Your task to perform on an android device: open wifi settings Image 0: 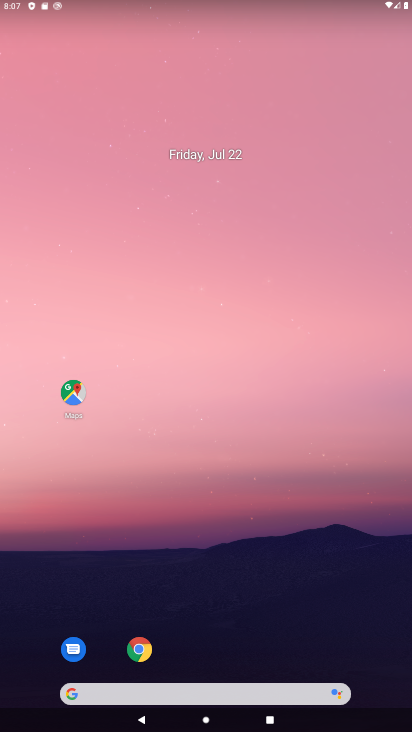
Step 0: drag from (217, 590) to (240, 301)
Your task to perform on an android device: open wifi settings Image 1: 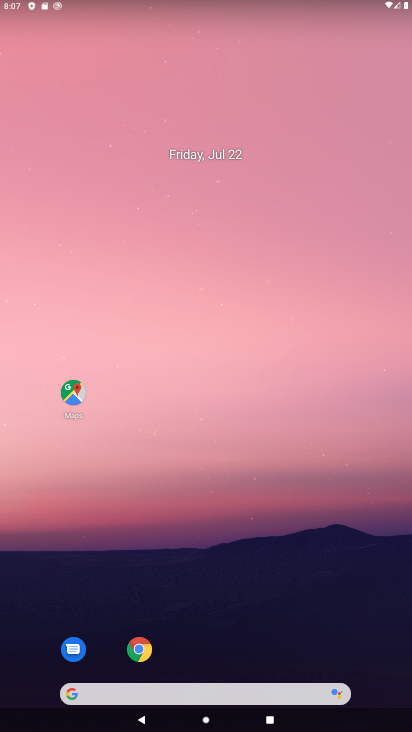
Step 1: drag from (257, 549) to (262, 182)
Your task to perform on an android device: open wifi settings Image 2: 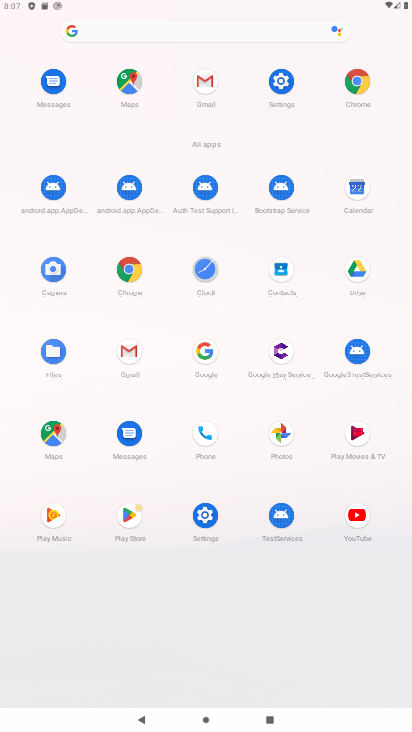
Step 2: click (284, 84)
Your task to perform on an android device: open wifi settings Image 3: 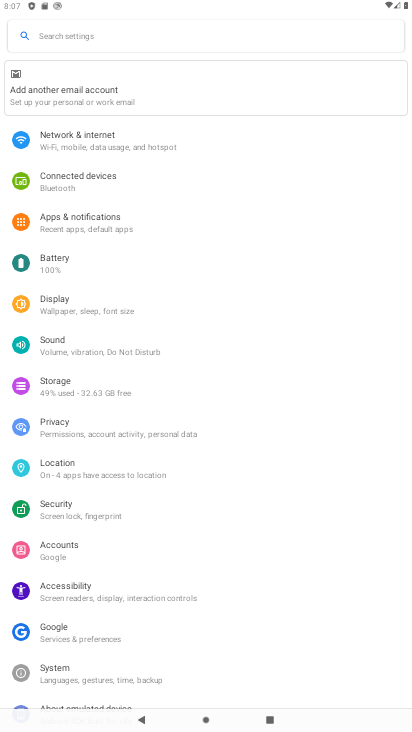
Step 3: click (75, 131)
Your task to perform on an android device: open wifi settings Image 4: 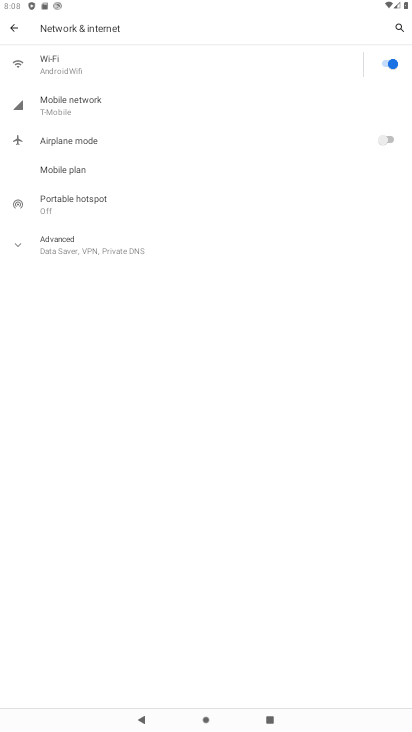
Step 4: task complete